Your task to perform on an android device: toggle notifications settings in the gmail app Image 0: 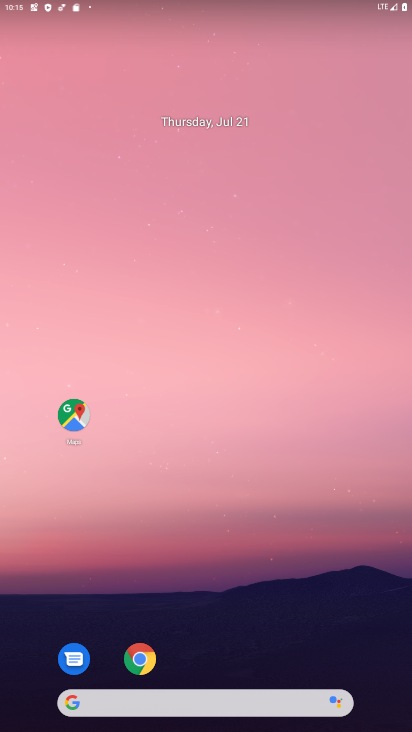
Step 0: drag from (283, 483) to (232, 53)
Your task to perform on an android device: toggle notifications settings in the gmail app Image 1: 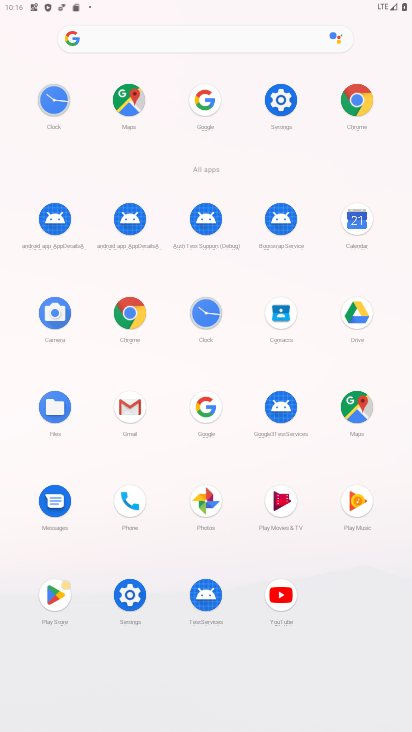
Step 1: click (146, 403)
Your task to perform on an android device: toggle notifications settings in the gmail app Image 2: 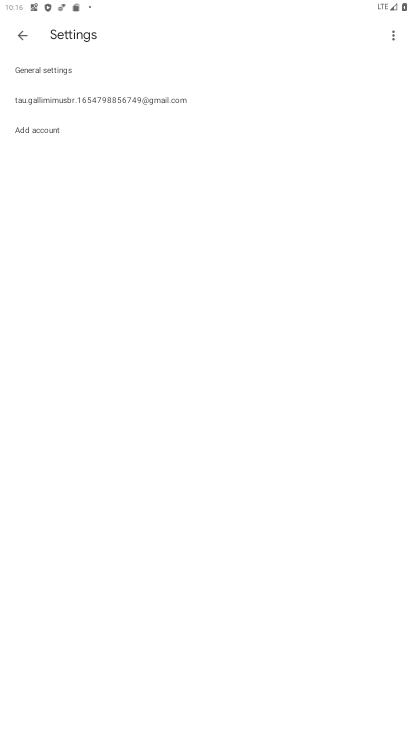
Step 2: click (91, 96)
Your task to perform on an android device: toggle notifications settings in the gmail app Image 3: 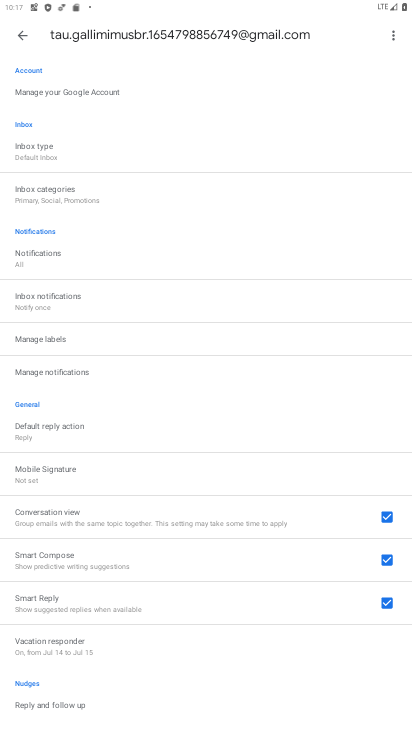
Step 3: click (50, 360)
Your task to perform on an android device: toggle notifications settings in the gmail app Image 4: 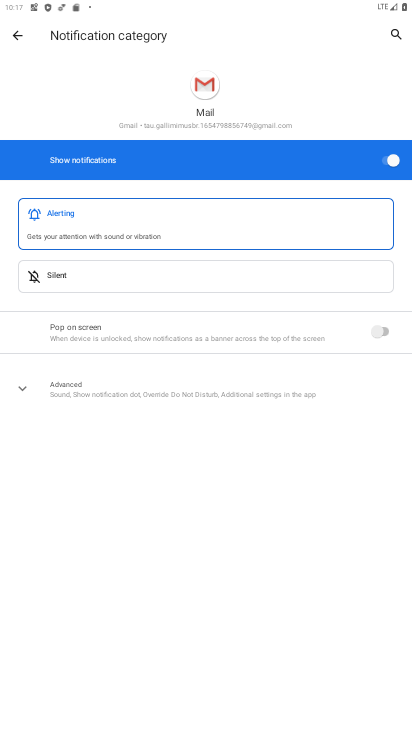
Step 4: click (371, 154)
Your task to perform on an android device: toggle notifications settings in the gmail app Image 5: 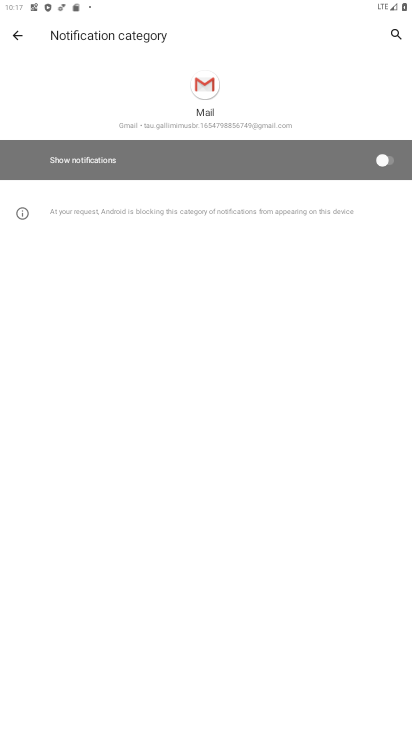
Step 5: task complete